Your task to perform on an android device: see tabs open on other devices in the chrome app Image 0: 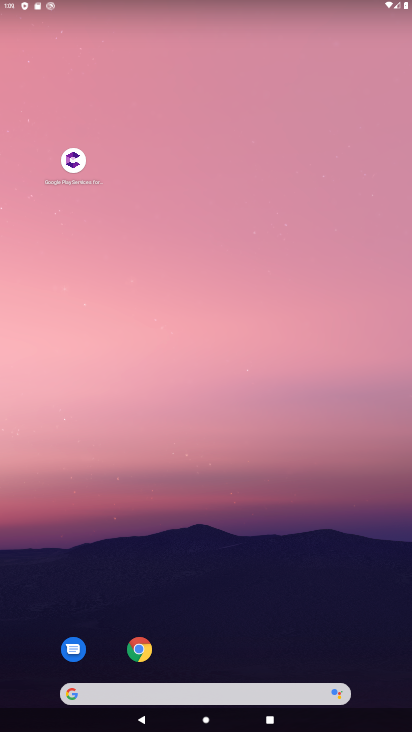
Step 0: click (155, 646)
Your task to perform on an android device: see tabs open on other devices in the chrome app Image 1: 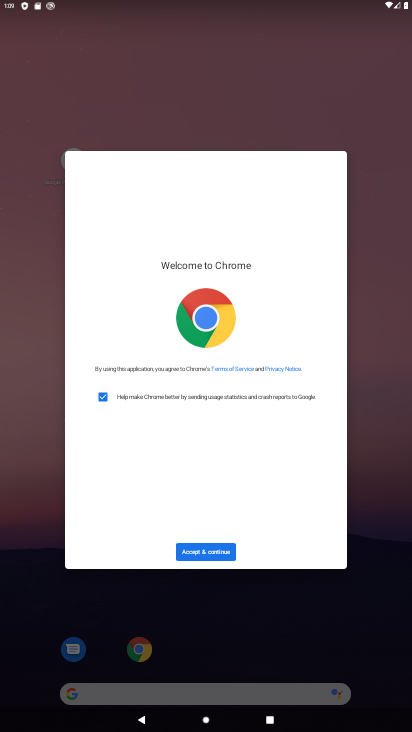
Step 1: click (195, 555)
Your task to perform on an android device: see tabs open on other devices in the chrome app Image 2: 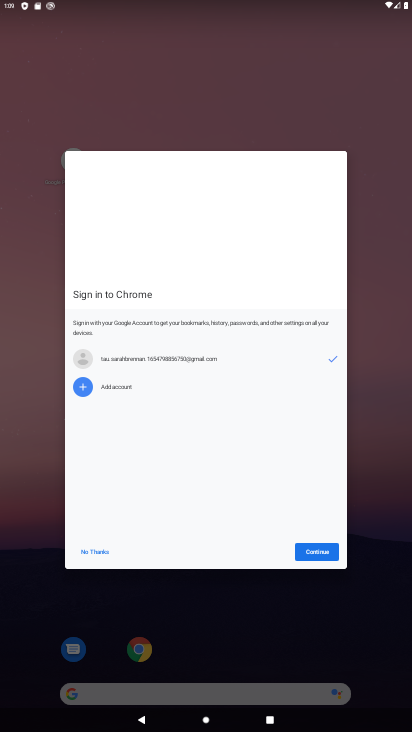
Step 2: click (318, 537)
Your task to perform on an android device: see tabs open on other devices in the chrome app Image 3: 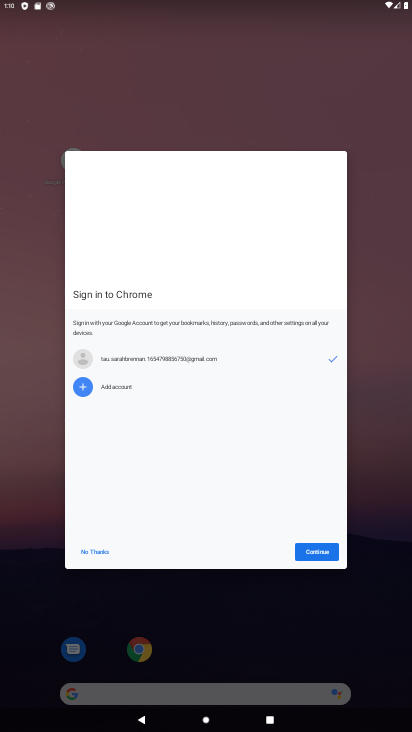
Step 3: click (317, 555)
Your task to perform on an android device: see tabs open on other devices in the chrome app Image 4: 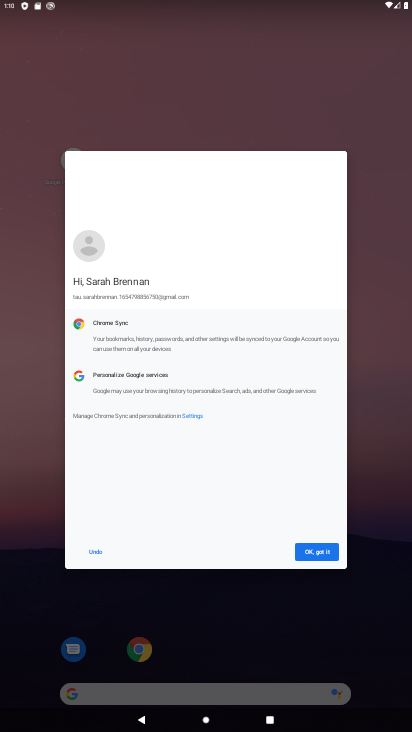
Step 4: click (317, 555)
Your task to perform on an android device: see tabs open on other devices in the chrome app Image 5: 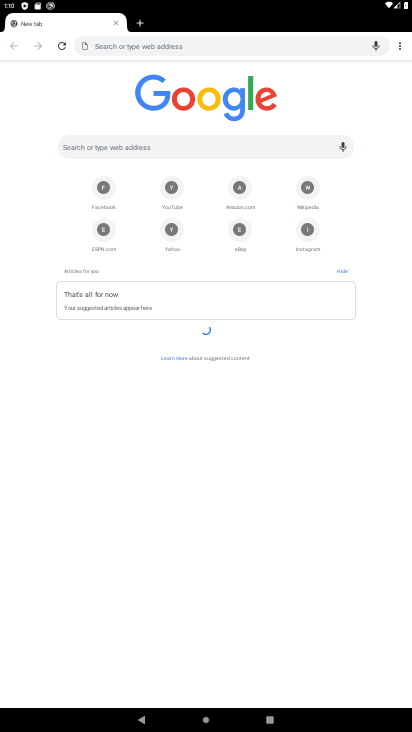
Step 5: click (137, 21)
Your task to perform on an android device: see tabs open on other devices in the chrome app Image 6: 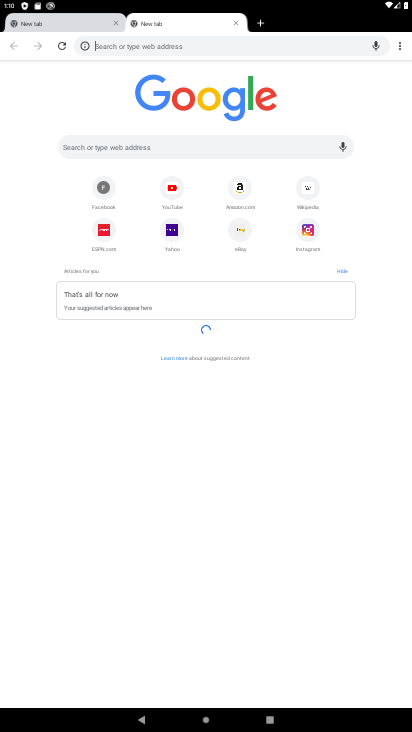
Step 6: task complete